Your task to perform on an android device: all mails in gmail Image 0: 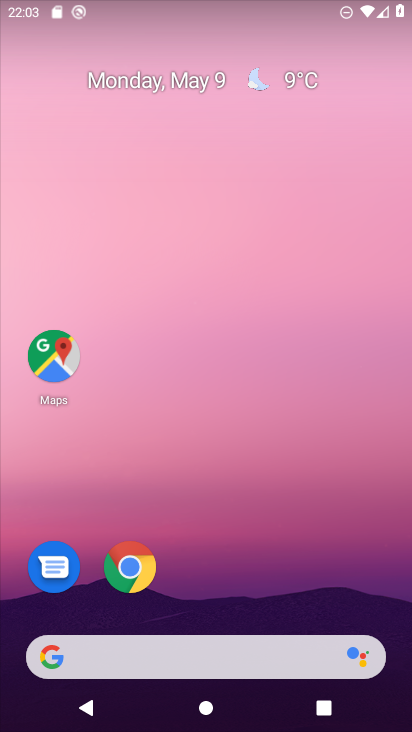
Step 0: click (186, 661)
Your task to perform on an android device: all mails in gmail Image 1: 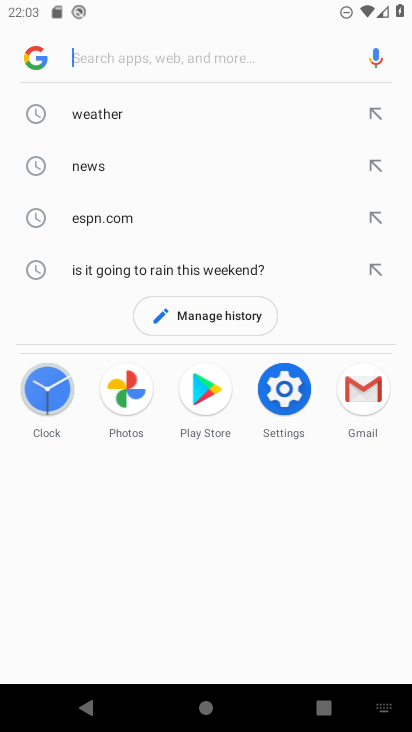
Step 1: press home button
Your task to perform on an android device: all mails in gmail Image 2: 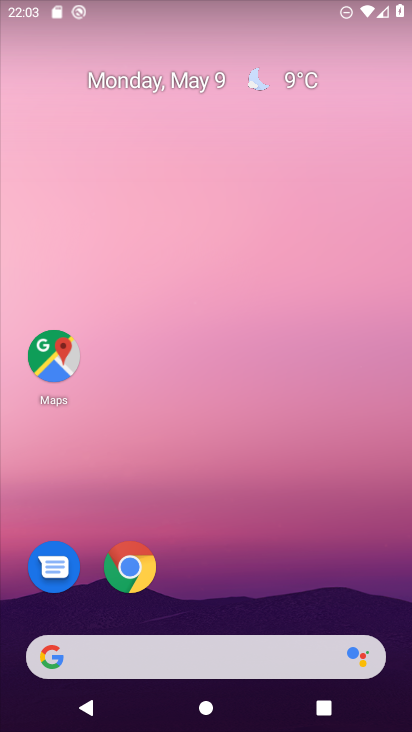
Step 2: drag from (173, 468) to (184, 147)
Your task to perform on an android device: all mails in gmail Image 3: 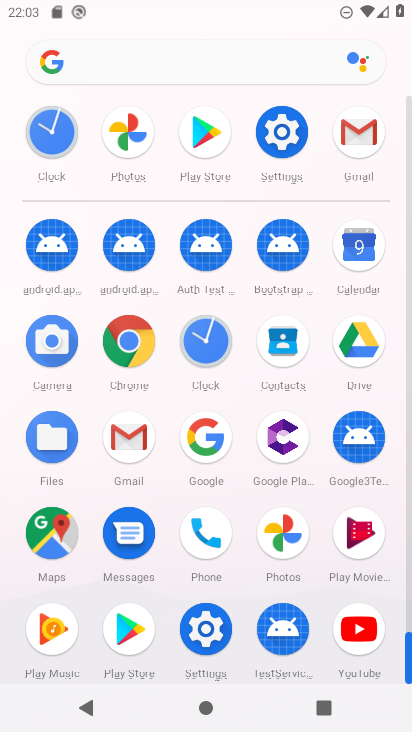
Step 3: click (359, 135)
Your task to perform on an android device: all mails in gmail Image 4: 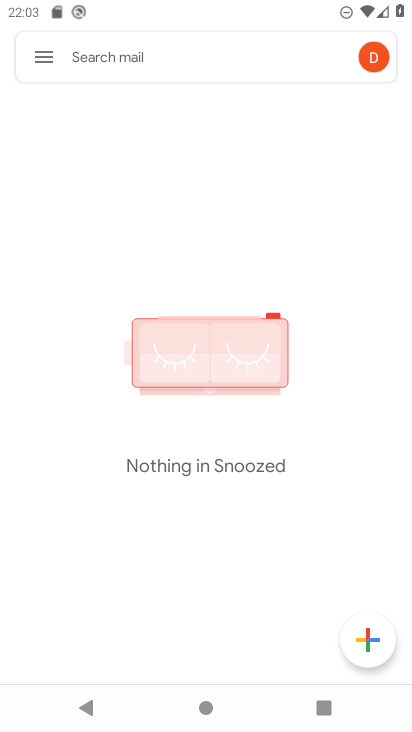
Step 4: click (32, 49)
Your task to perform on an android device: all mails in gmail Image 5: 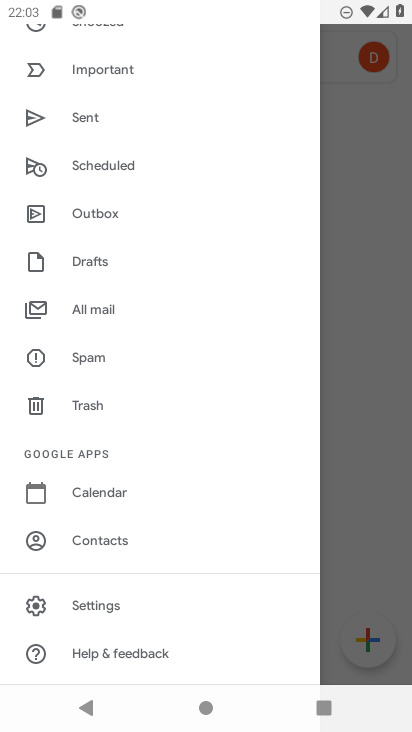
Step 5: click (84, 302)
Your task to perform on an android device: all mails in gmail Image 6: 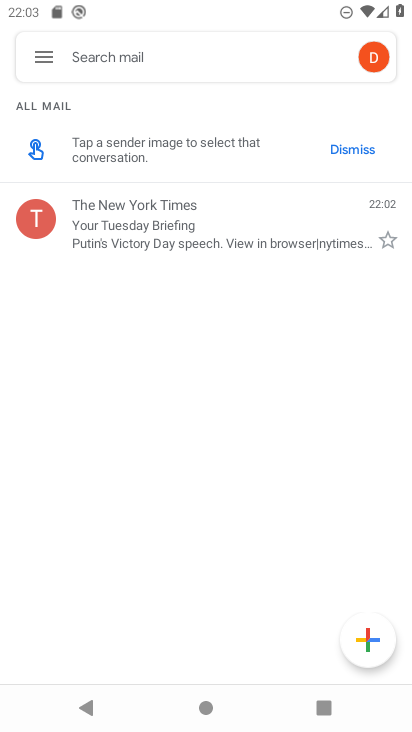
Step 6: task complete